Your task to perform on an android device: Go to battery settings Image 0: 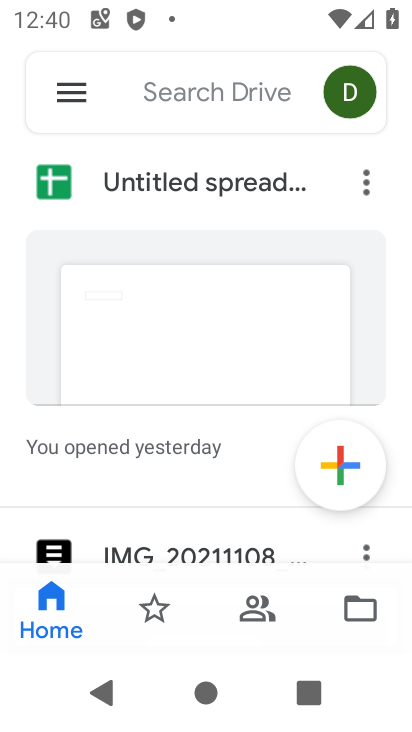
Step 0: press home button
Your task to perform on an android device: Go to battery settings Image 1: 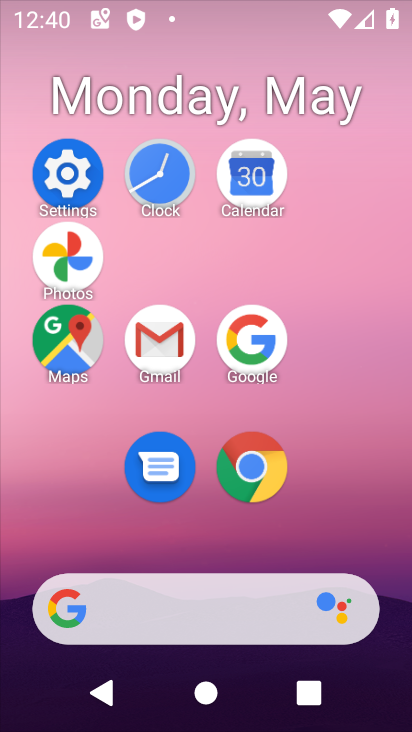
Step 1: click (92, 184)
Your task to perform on an android device: Go to battery settings Image 2: 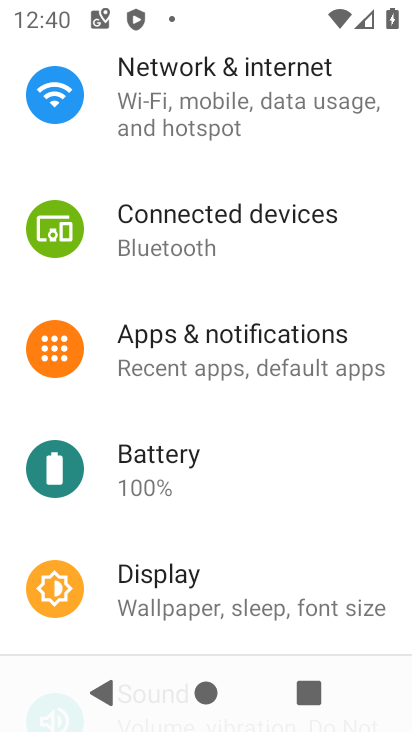
Step 2: click (188, 477)
Your task to perform on an android device: Go to battery settings Image 3: 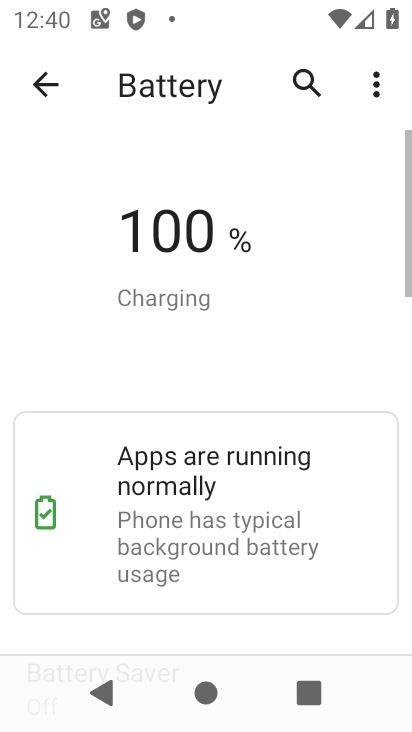
Step 3: task complete